Your task to perform on an android device: Play the last video I watched on Youtube Image 0: 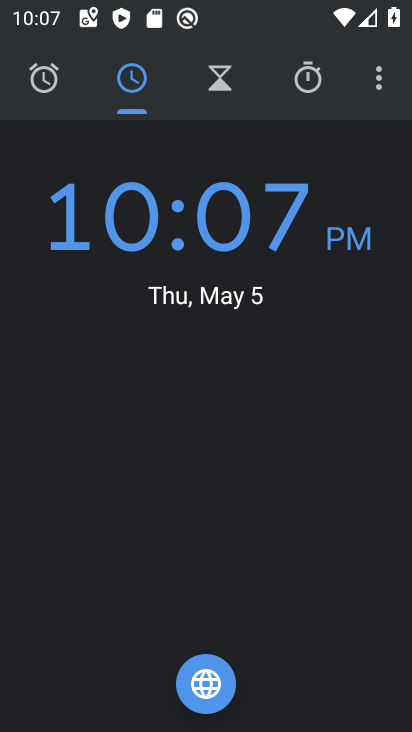
Step 0: press home button
Your task to perform on an android device: Play the last video I watched on Youtube Image 1: 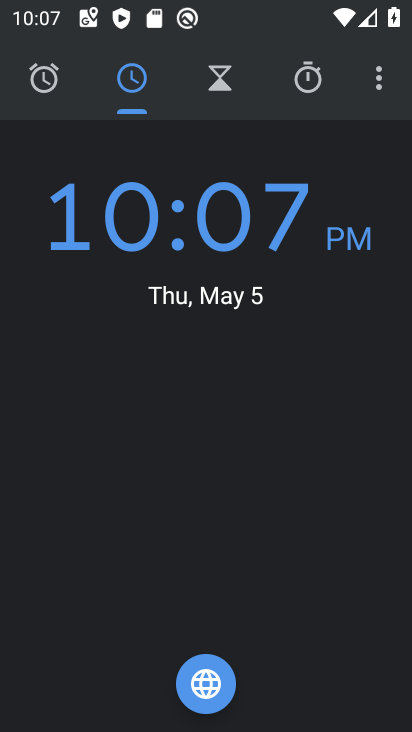
Step 1: press home button
Your task to perform on an android device: Play the last video I watched on Youtube Image 2: 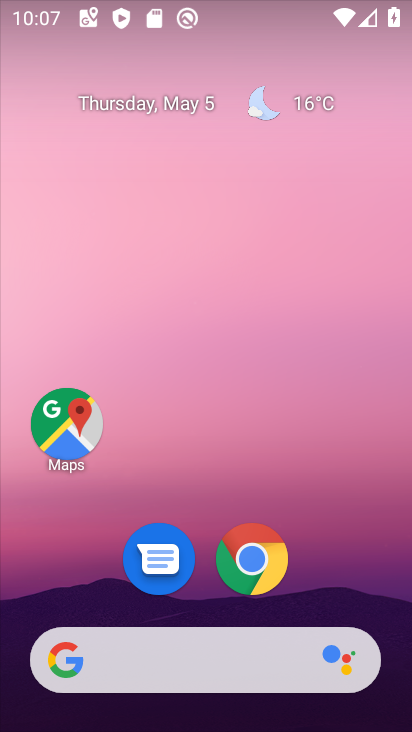
Step 2: drag from (291, 531) to (348, 0)
Your task to perform on an android device: Play the last video I watched on Youtube Image 3: 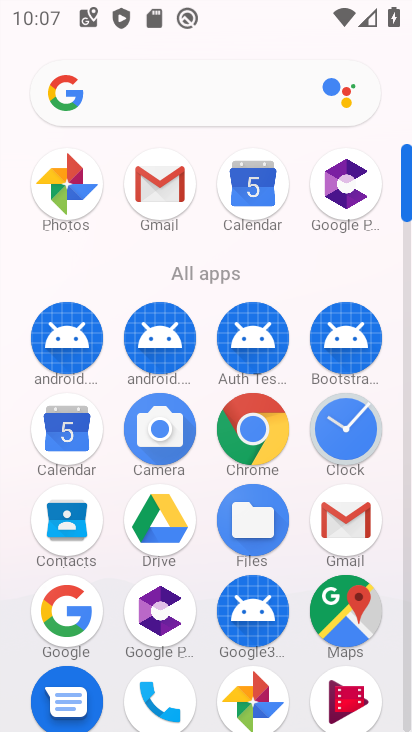
Step 3: drag from (299, 276) to (252, 16)
Your task to perform on an android device: Play the last video I watched on Youtube Image 4: 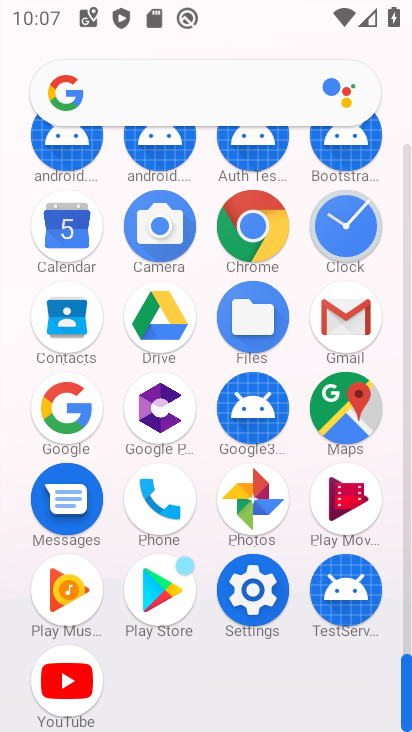
Step 4: click (89, 667)
Your task to perform on an android device: Play the last video I watched on Youtube Image 5: 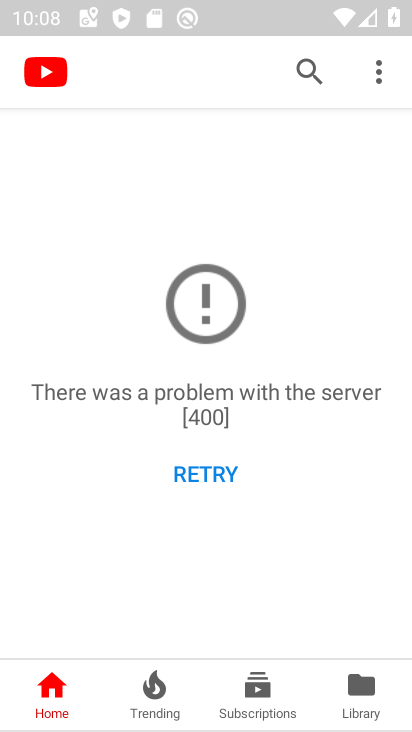
Step 5: click (368, 677)
Your task to perform on an android device: Play the last video I watched on Youtube Image 6: 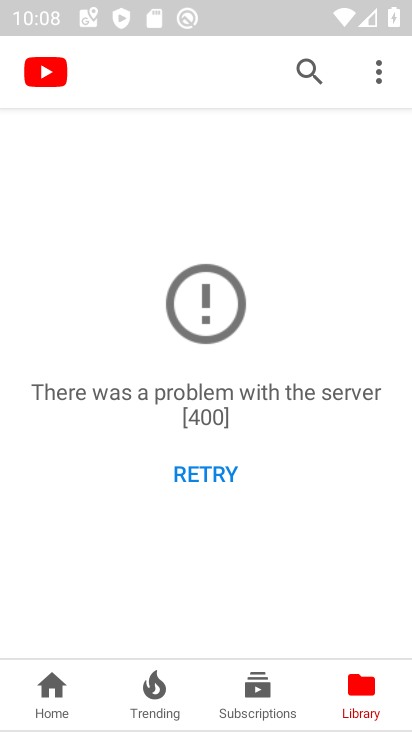
Step 6: task complete